Your task to perform on an android device: check data usage Image 0: 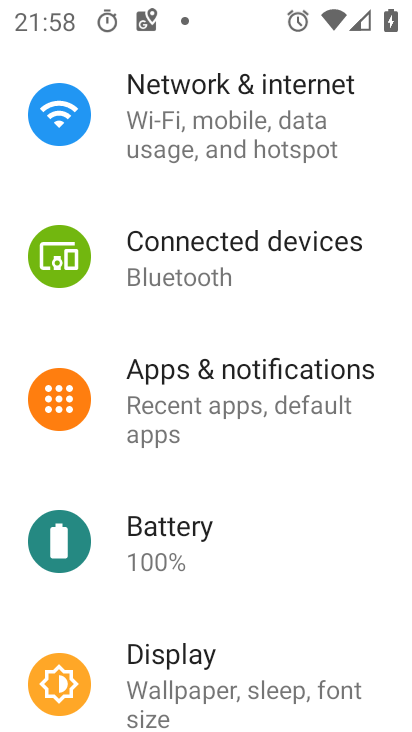
Step 0: press home button
Your task to perform on an android device: check data usage Image 1: 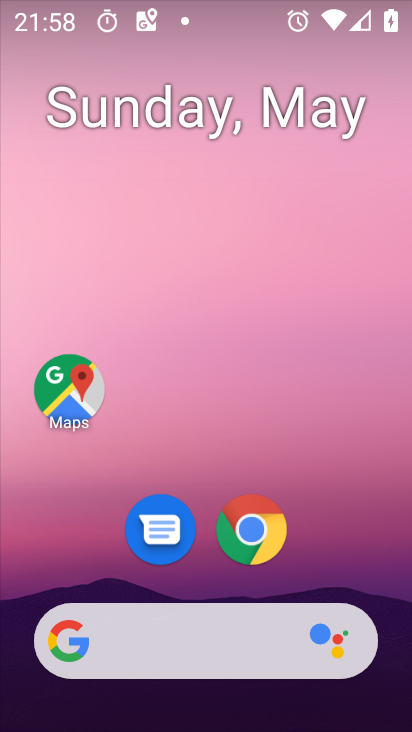
Step 1: drag from (326, 564) to (284, 0)
Your task to perform on an android device: check data usage Image 2: 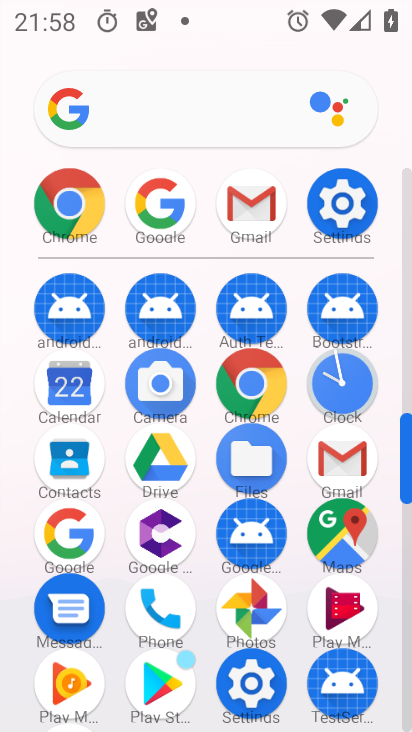
Step 2: click (364, 198)
Your task to perform on an android device: check data usage Image 3: 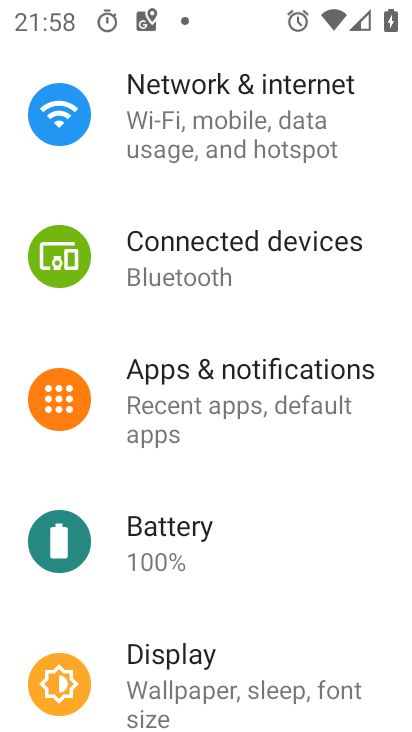
Step 3: click (213, 132)
Your task to perform on an android device: check data usage Image 4: 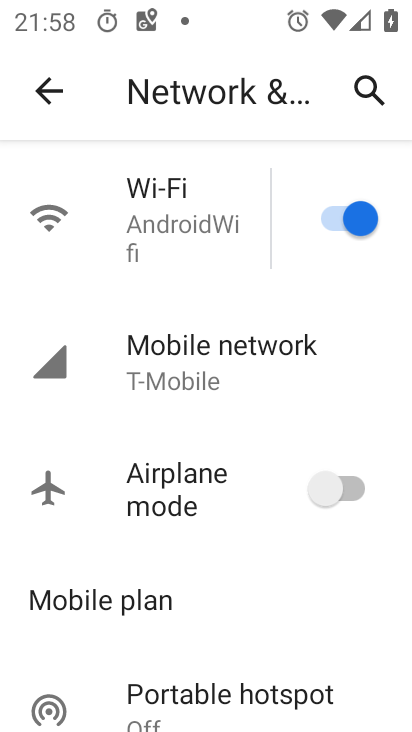
Step 4: click (194, 370)
Your task to perform on an android device: check data usage Image 5: 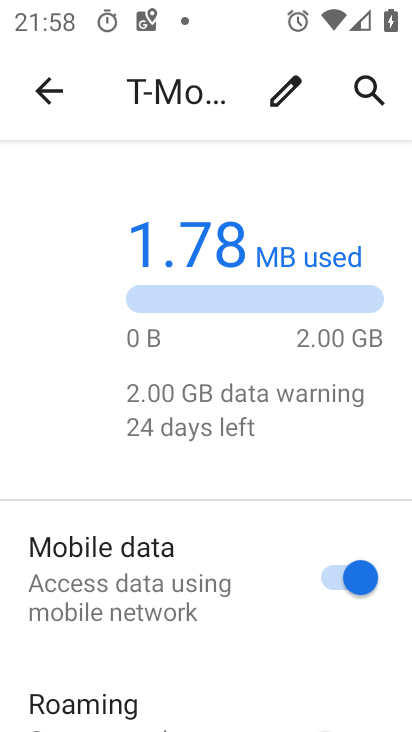
Step 5: drag from (196, 583) to (183, 206)
Your task to perform on an android device: check data usage Image 6: 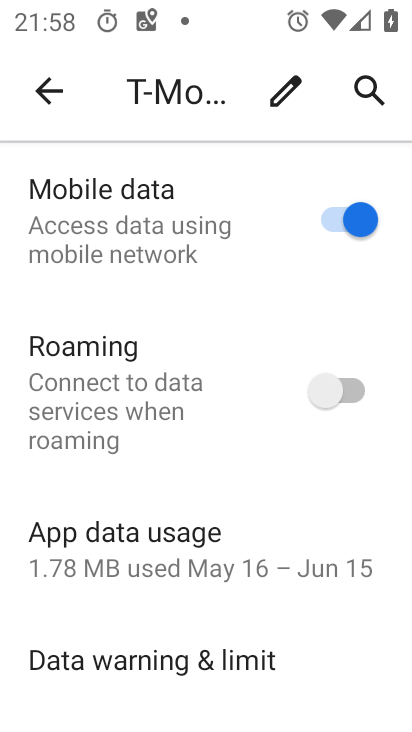
Step 6: click (136, 550)
Your task to perform on an android device: check data usage Image 7: 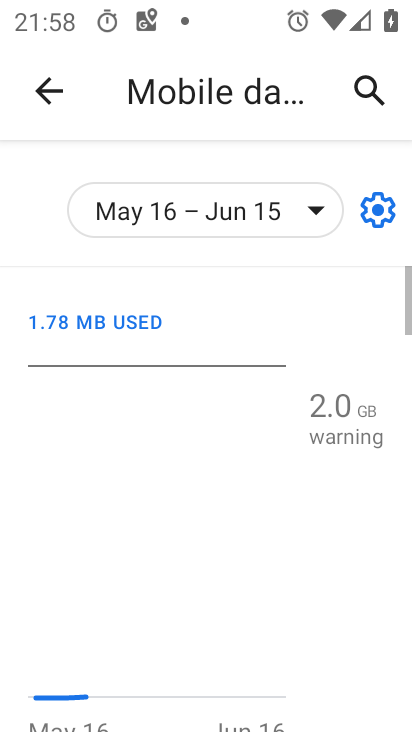
Step 7: task complete